Your task to perform on an android device: turn pop-ups on in chrome Image 0: 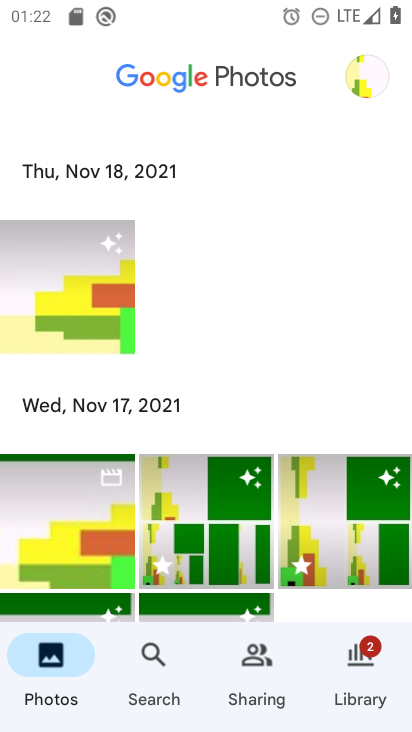
Step 0: press home button
Your task to perform on an android device: turn pop-ups on in chrome Image 1: 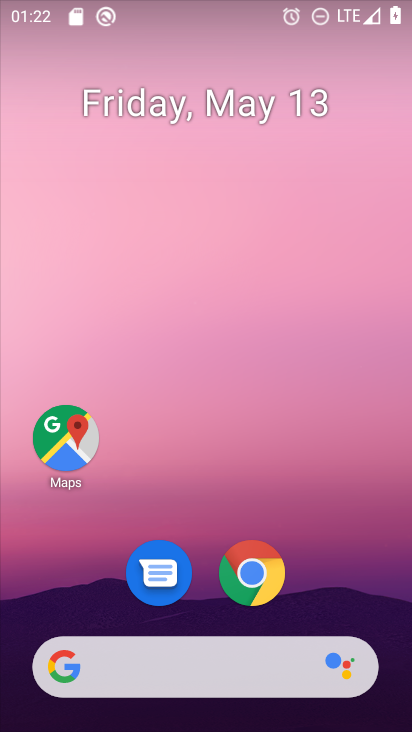
Step 1: drag from (237, 722) to (114, 145)
Your task to perform on an android device: turn pop-ups on in chrome Image 2: 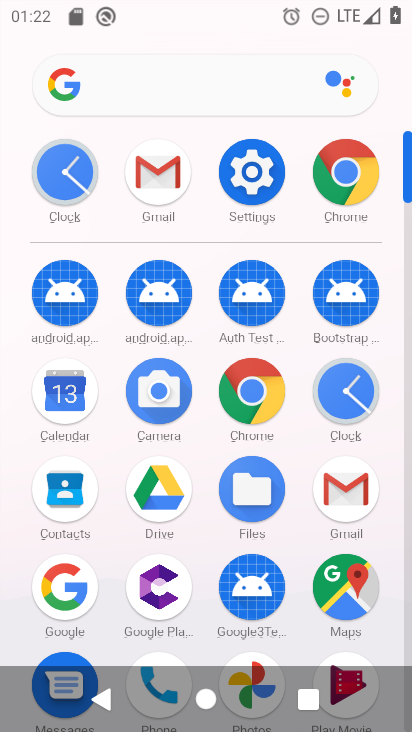
Step 2: click (358, 180)
Your task to perform on an android device: turn pop-ups on in chrome Image 3: 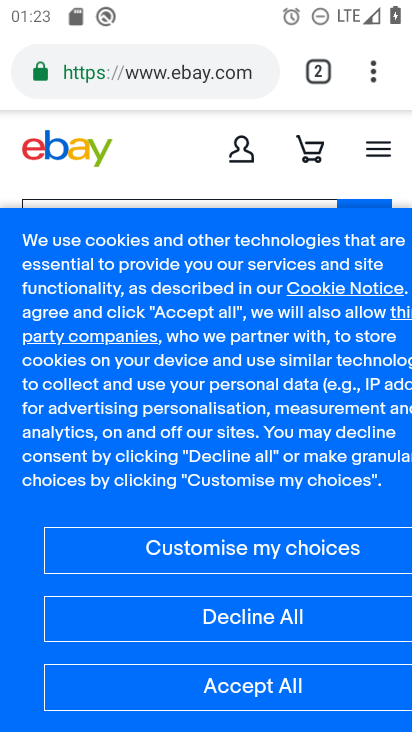
Step 3: click (370, 68)
Your task to perform on an android device: turn pop-ups on in chrome Image 4: 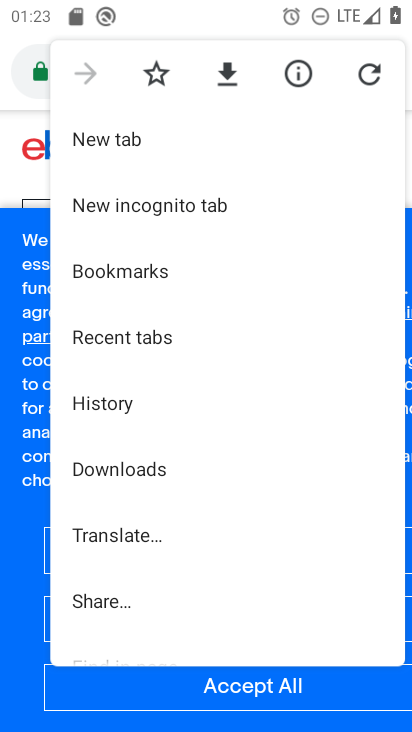
Step 4: drag from (262, 540) to (247, 4)
Your task to perform on an android device: turn pop-ups on in chrome Image 5: 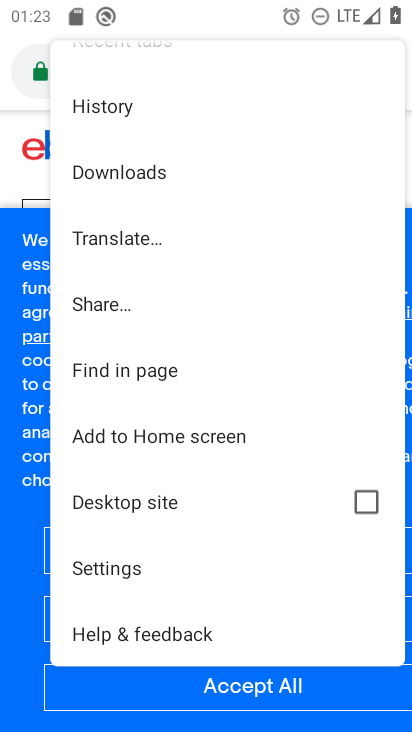
Step 5: click (107, 575)
Your task to perform on an android device: turn pop-ups on in chrome Image 6: 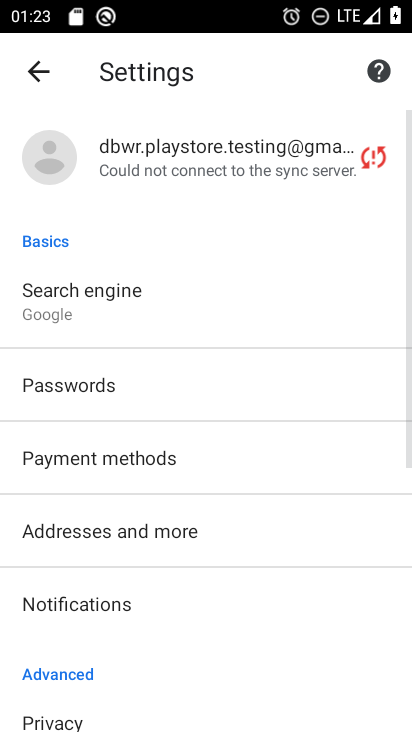
Step 6: drag from (229, 690) to (229, 100)
Your task to perform on an android device: turn pop-ups on in chrome Image 7: 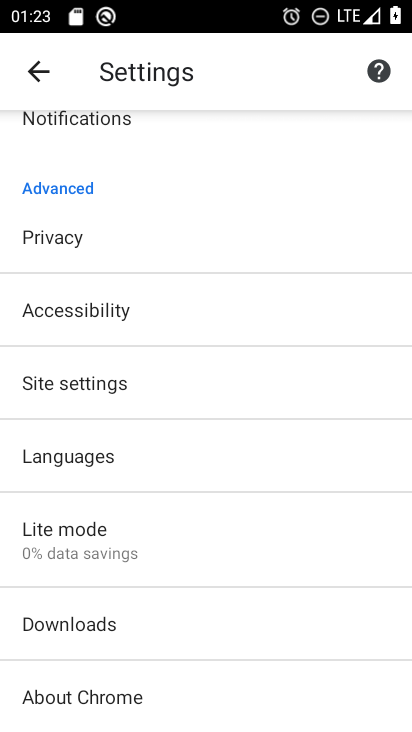
Step 7: click (113, 383)
Your task to perform on an android device: turn pop-ups on in chrome Image 8: 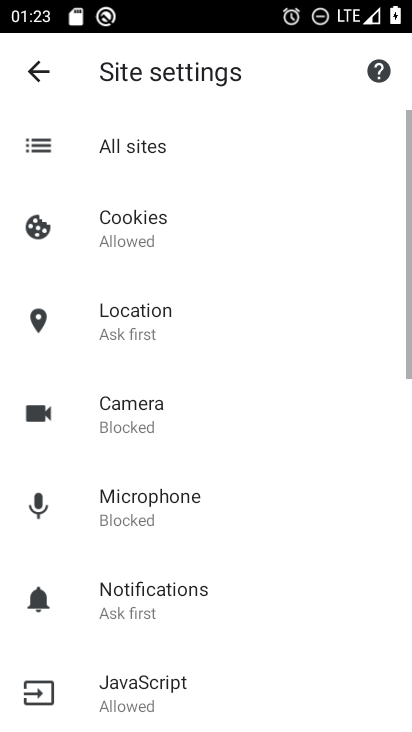
Step 8: drag from (226, 664) to (268, 143)
Your task to perform on an android device: turn pop-ups on in chrome Image 9: 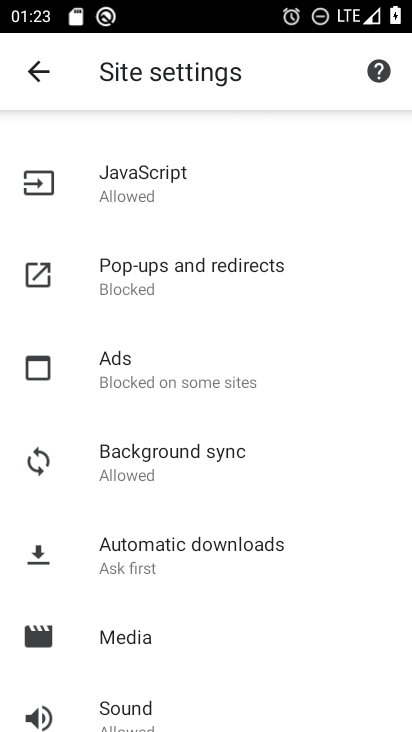
Step 9: click (182, 280)
Your task to perform on an android device: turn pop-ups on in chrome Image 10: 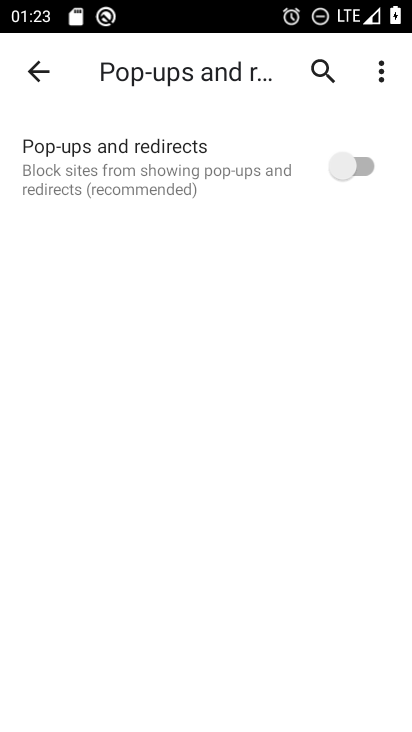
Step 10: click (362, 168)
Your task to perform on an android device: turn pop-ups on in chrome Image 11: 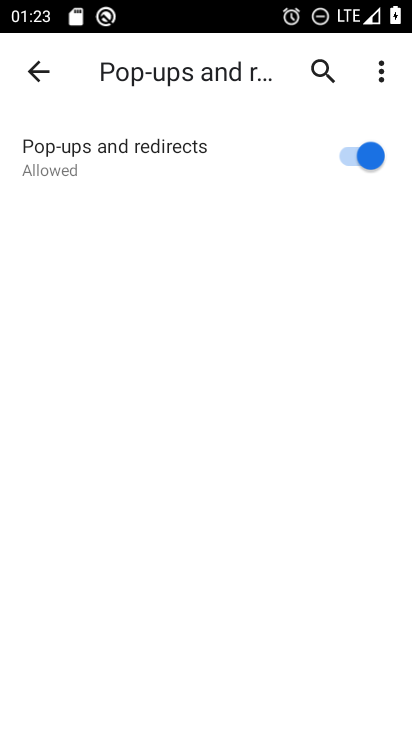
Step 11: task complete